Your task to perform on an android device: What's on my calendar today? Image 0: 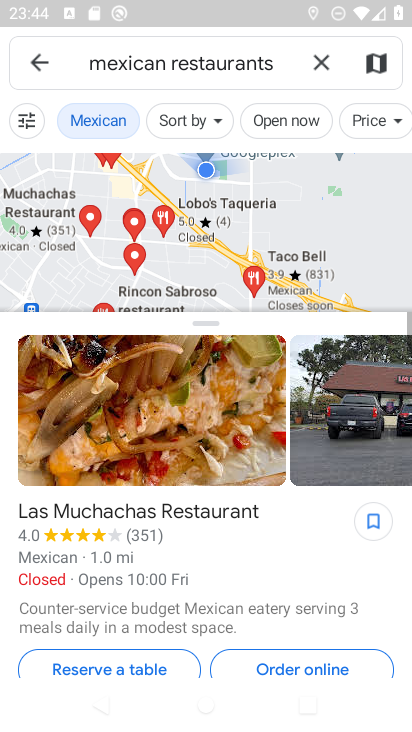
Step 0: press home button
Your task to perform on an android device: What's on my calendar today? Image 1: 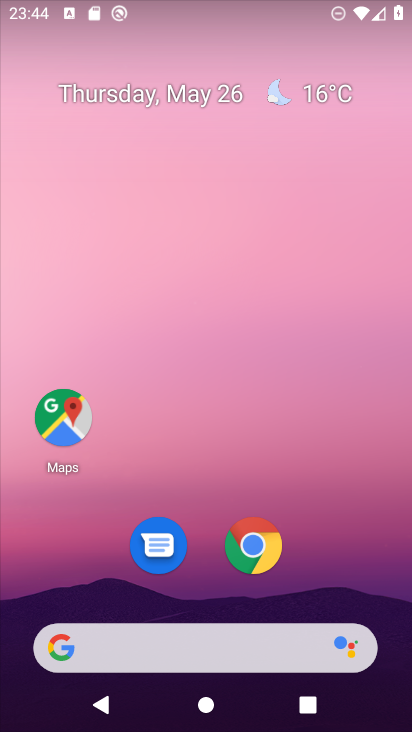
Step 1: drag from (308, 598) to (333, 325)
Your task to perform on an android device: What's on my calendar today? Image 2: 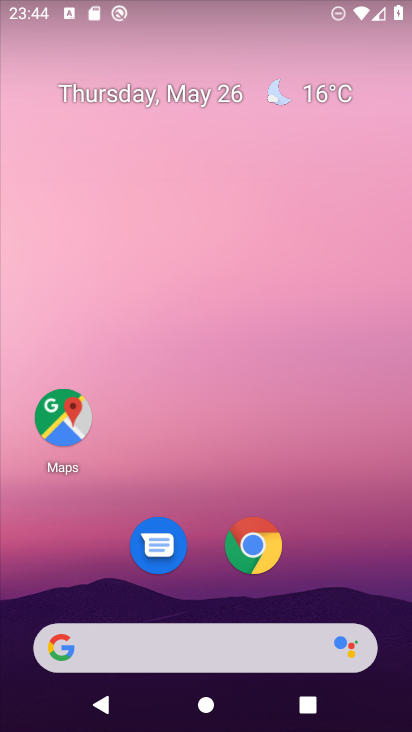
Step 2: drag from (344, 600) to (381, 272)
Your task to perform on an android device: What's on my calendar today? Image 3: 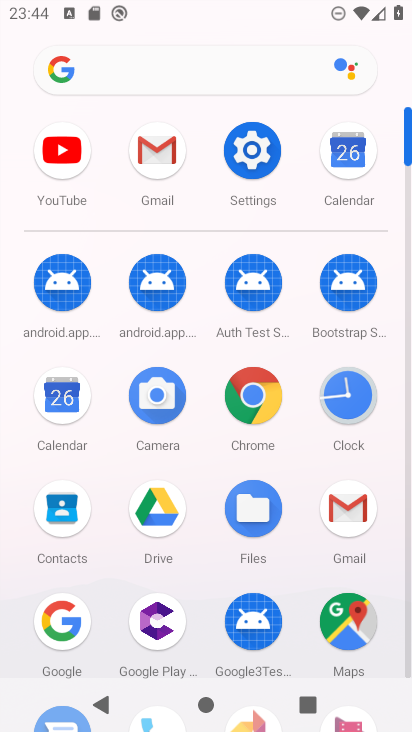
Step 3: click (64, 400)
Your task to perform on an android device: What's on my calendar today? Image 4: 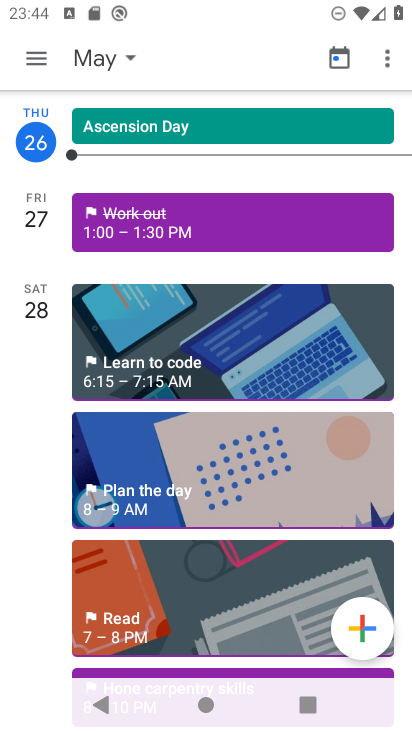
Step 4: task complete